Your task to perform on an android device: Go to Maps Image 0: 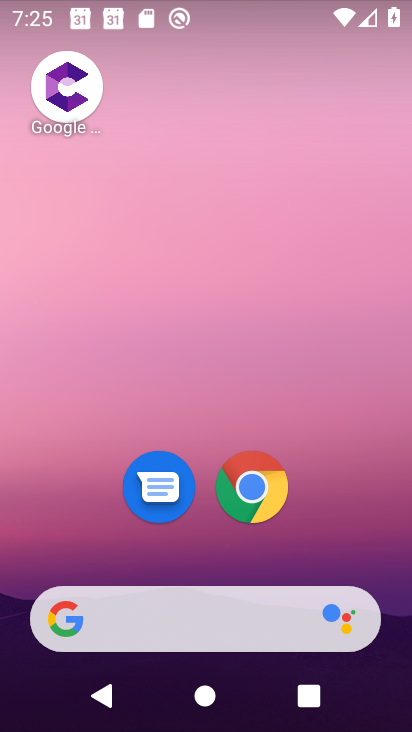
Step 0: drag from (338, 537) to (251, 206)
Your task to perform on an android device: Go to Maps Image 1: 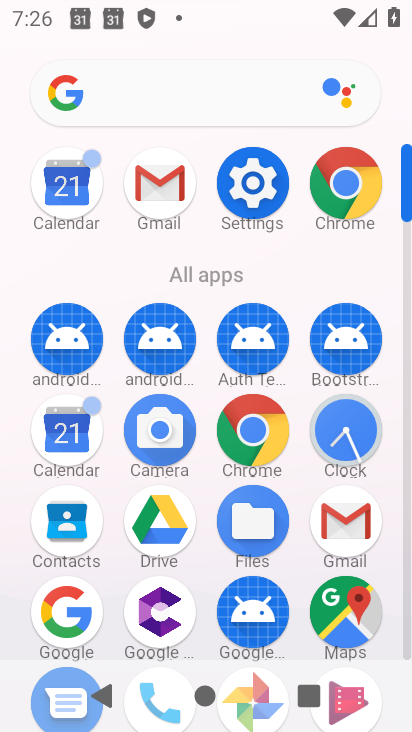
Step 1: click (335, 610)
Your task to perform on an android device: Go to Maps Image 2: 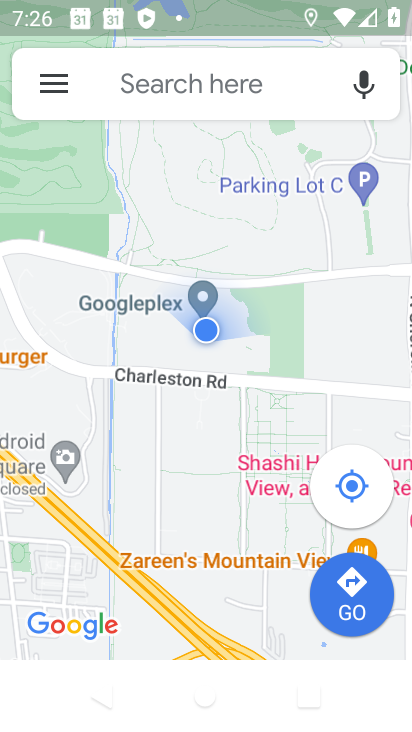
Step 2: task complete